Your task to perform on an android device: Go to Google maps Image 0: 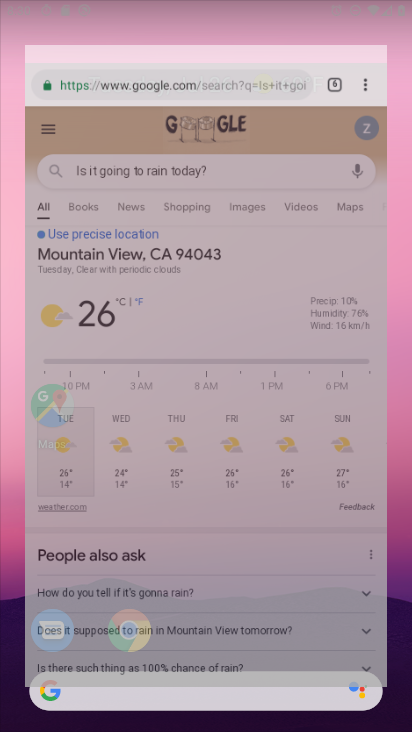
Step 0: drag from (224, 606) to (277, 195)
Your task to perform on an android device: Go to Google maps Image 1: 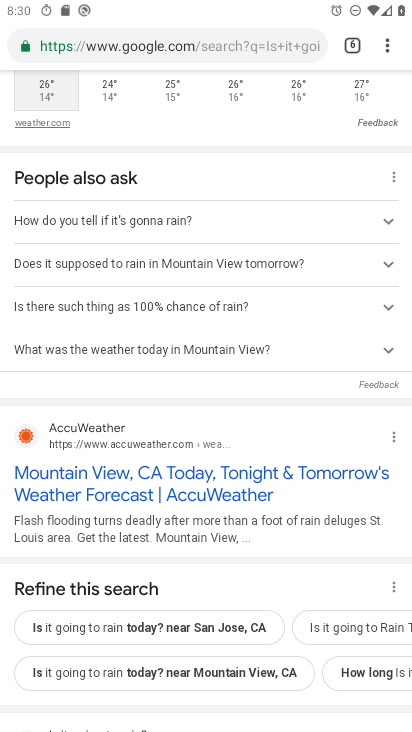
Step 1: press home button
Your task to perform on an android device: Go to Google maps Image 2: 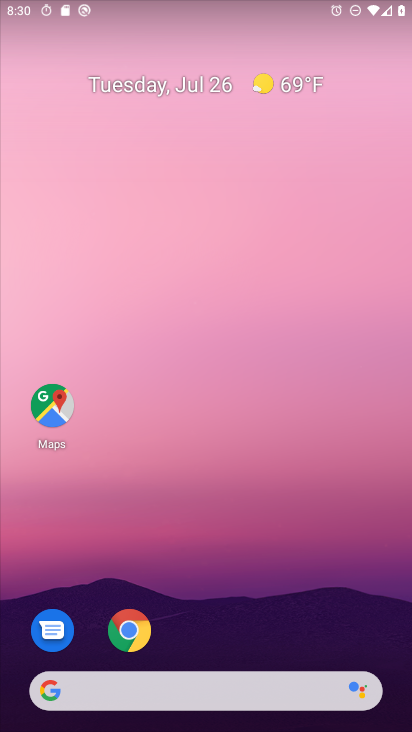
Step 2: drag from (283, 636) to (276, 61)
Your task to perform on an android device: Go to Google maps Image 3: 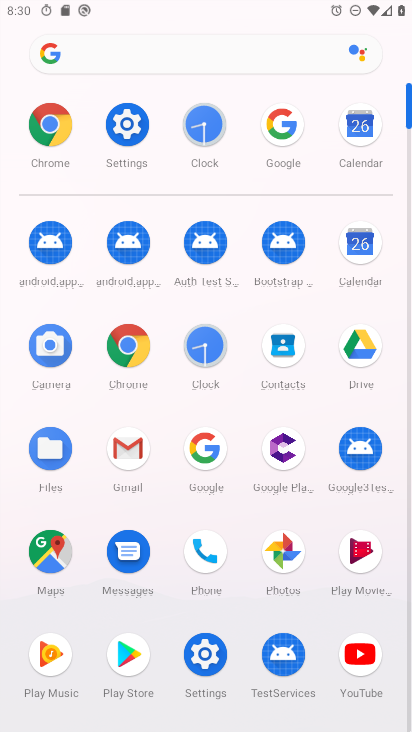
Step 3: click (62, 553)
Your task to perform on an android device: Go to Google maps Image 4: 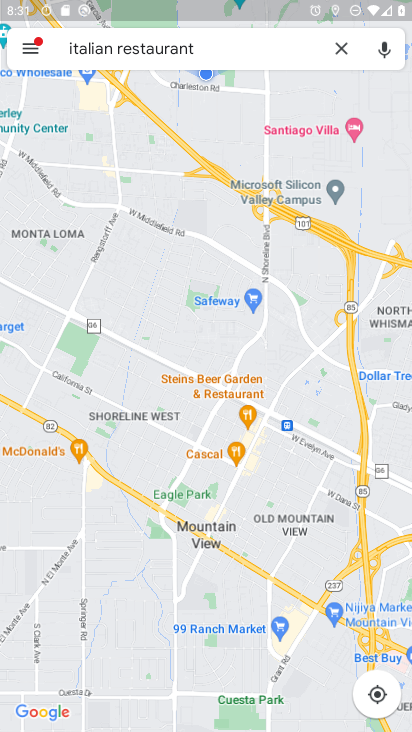
Step 4: task complete